Your task to perform on an android device: turn on notifications settings in the gmail app Image 0: 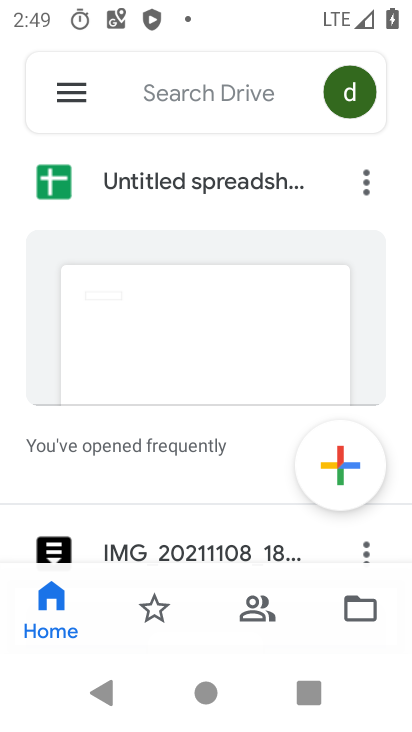
Step 0: press home button
Your task to perform on an android device: turn on notifications settings in the gmail app Image 1: 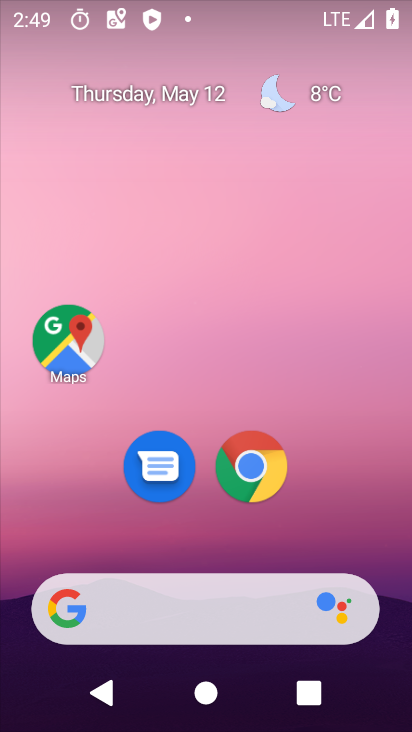
Step 1: drag from (308, 547) to (139, 114)
Your task to perform on an android device: turn on notifications settings in the gmail app Image 2: 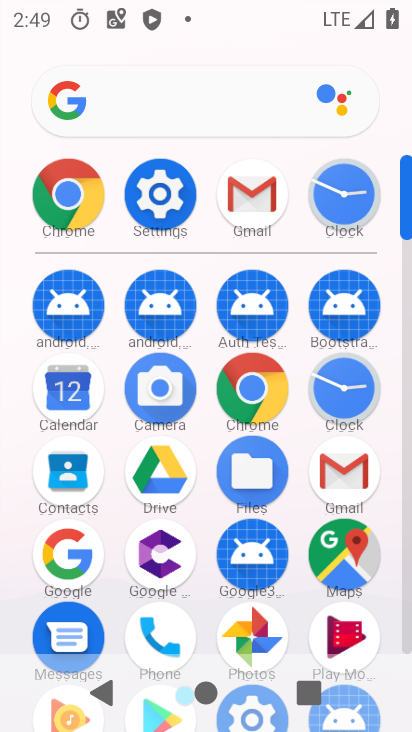
Step 2: click (254, 193)
Your task to perform on an android device: turn on notifications settings in the gmail app Image 3: 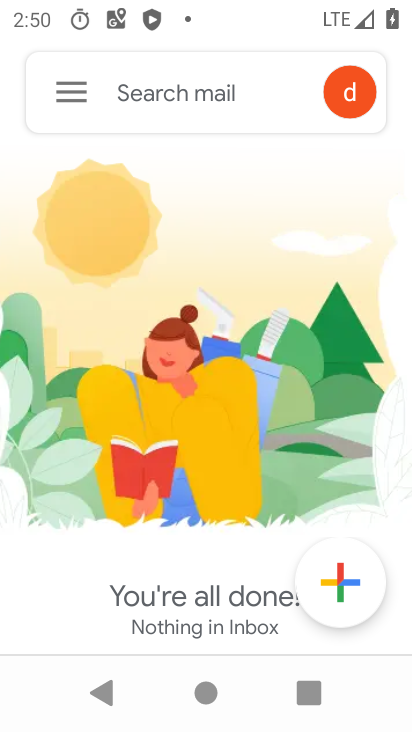
Step 3: click (63, 92)
Your task to perform on an android device: turn on notifications settings in the gmail app Image 4: 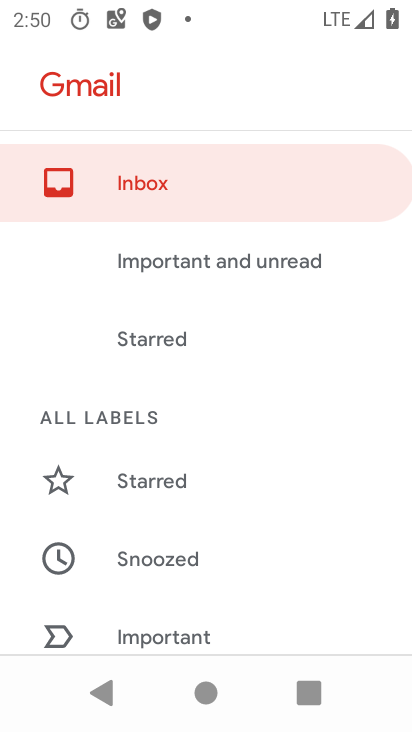
Step 4: drag from (205, 607) to (206, 266)
Your task to perform on an android device: turn on notifications settings in the gmail app Image 5: 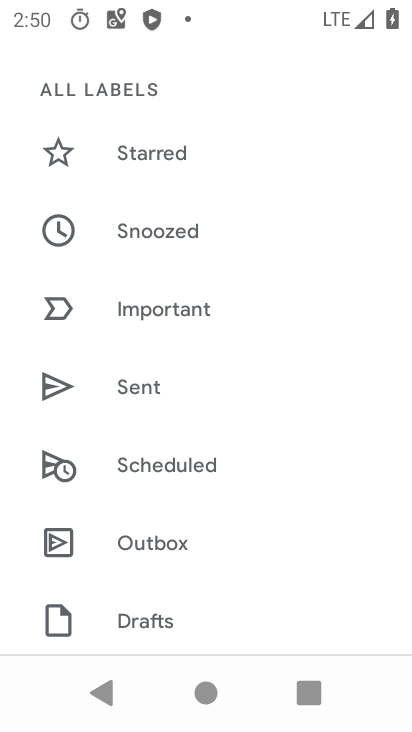
Step 5: drag from (220, 604) to (183, 182)
Your task to perform on an android device: turn on notifications settings in the gmail app Image 6: 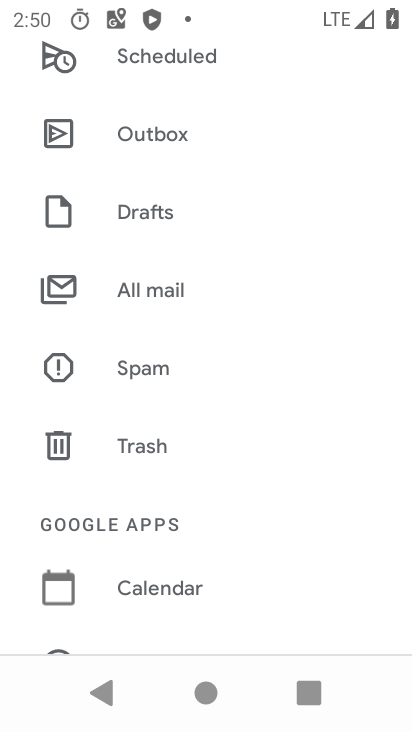
Step 6: drag from (162, 579) to (129, 248)
Your task to perform on an android device: turn on notifications settings in the gmail app Image 7: 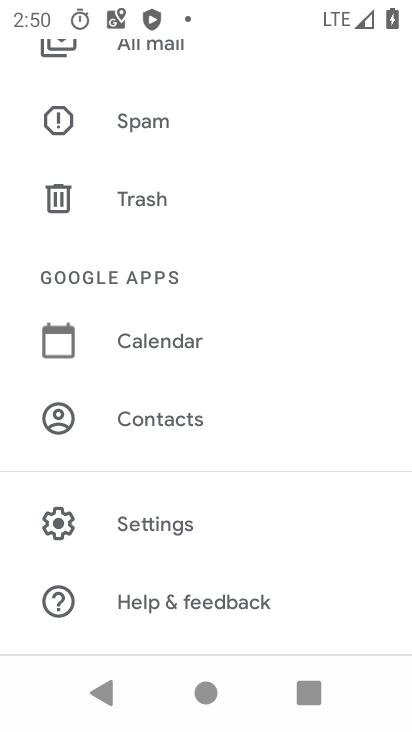
Step 7: click (157, 507)
Your task to perform on an android device: turn on notifications settings in the gmail app Image 8: 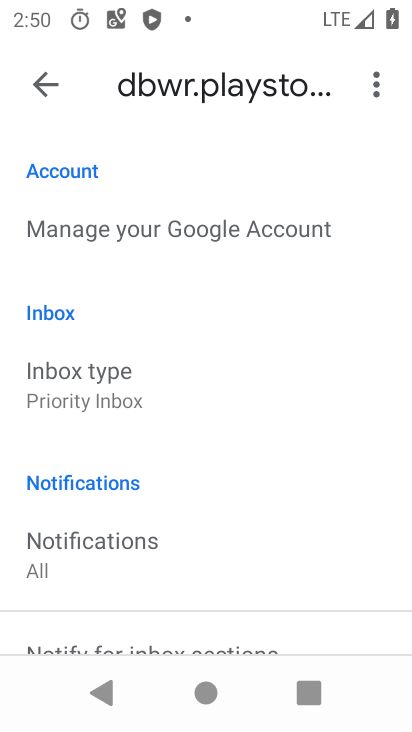
Step 8: drag from (75, 584) to (72, 242)
Your task to perform on an android device: turn on notifications settings in the gmail app Image 9: 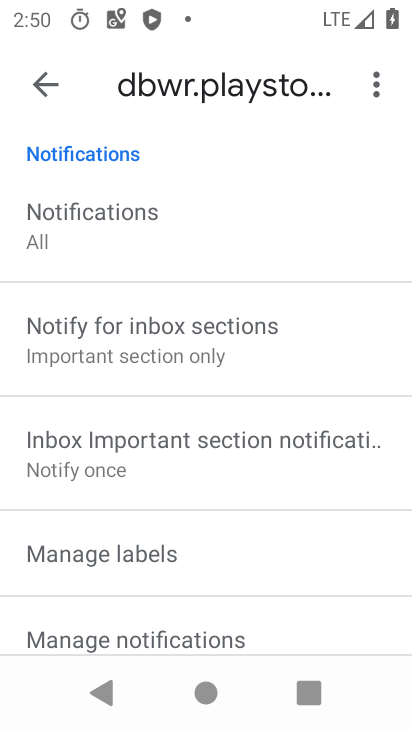
Step 9: drag from (110, 568) to (101, 341)
Your task to perform on an android device: turn on notifications settings in the gmail app Image 10: 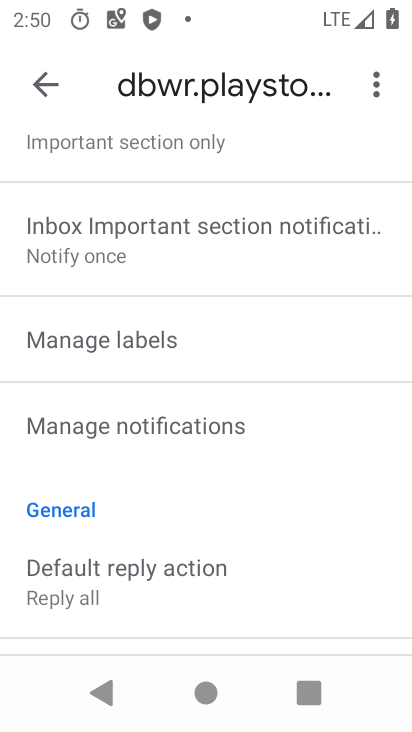
Step 10: click (89, 423)
Your task to perform on an android device: turn on notifications settings in the gmail app Image 11: 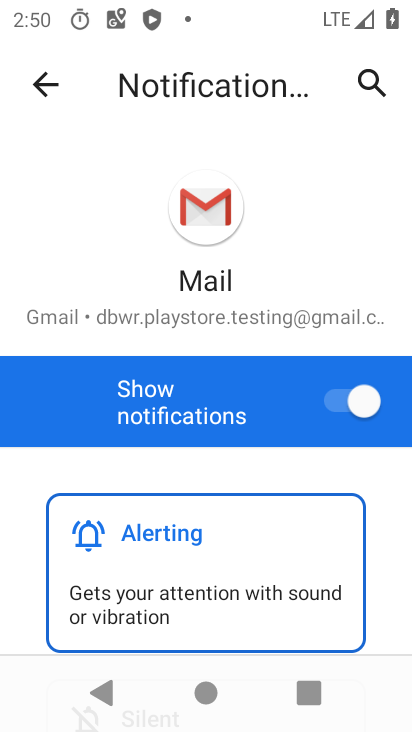
Step 11: task complete